Your task to perform on an android device: Open CNN.com Image 0: 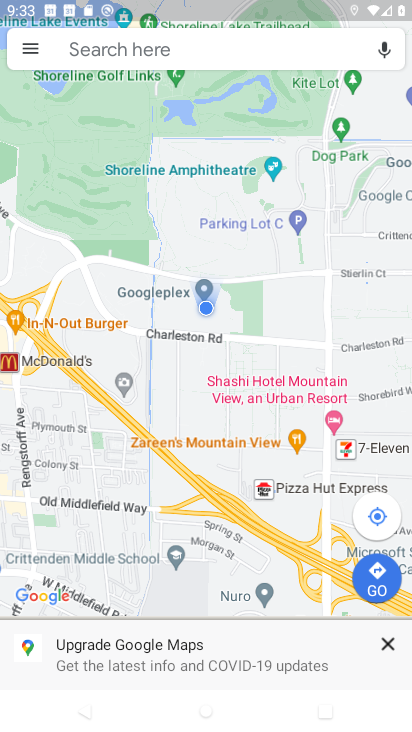
Step 0: press home button
Your task to perform on an android device: Open CNN.com Image 1: 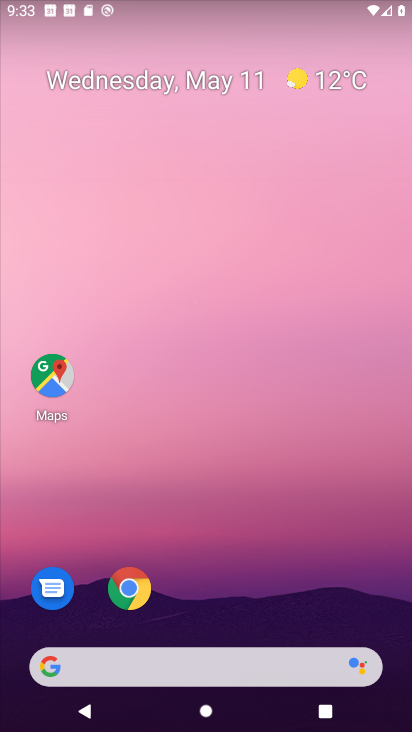
Step 1: click (129, 602)
Your task to perform on an android device: Open CNN.com Image 2: 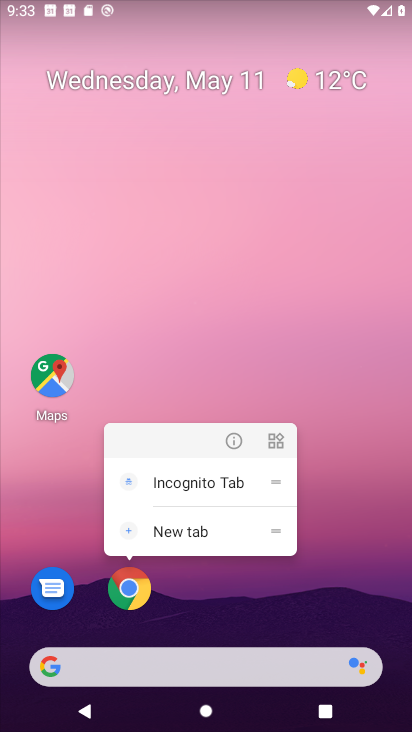
Step 2: drag from (284, 606) to (322, 47)
Your task to perform on an android device: Open CNN.com Image 3: 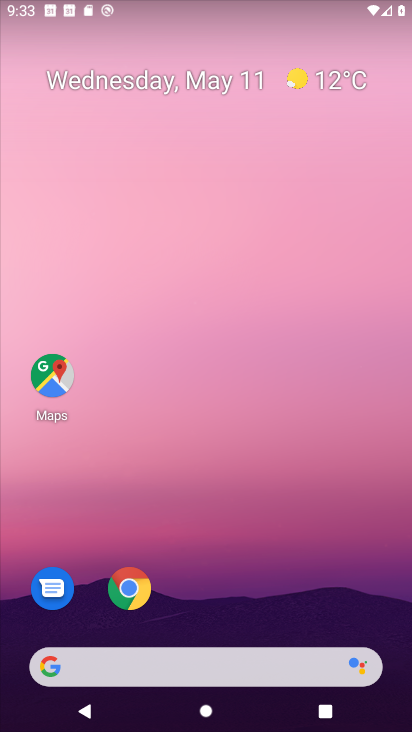
Step 3: drag from (253, 615) to (275, 70)
Your task to perform on an android device: Open CNN.com Image 4: 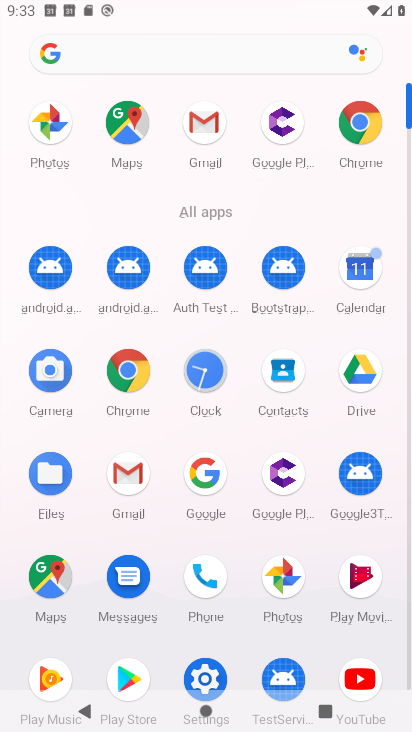
Step 4: click (358, 120)
Your task to perform on an android device: Open CNN.com Image 5: 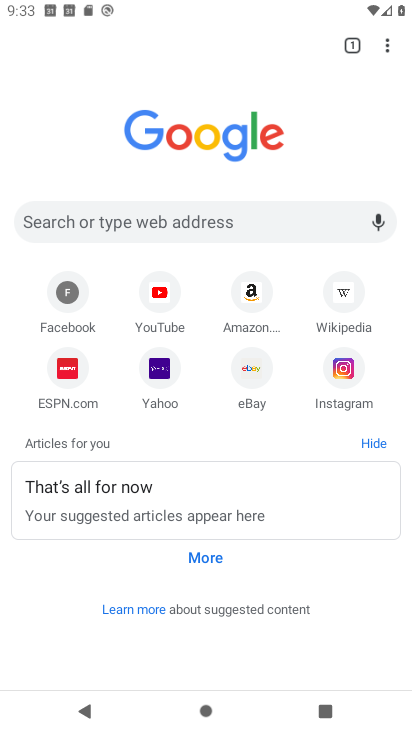
Step 5: click (132, 219)
Your task to perform on an android device: Open CNN.com Image 6: 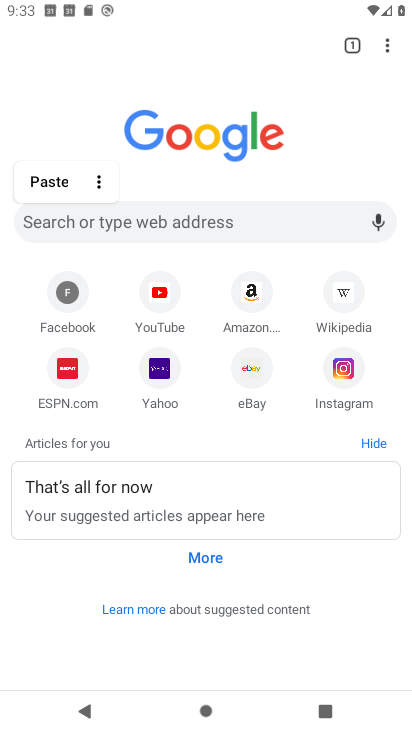
Step 6: type " CNN.com"
Your task to perform on an android device: Open CNN.com Image 7: 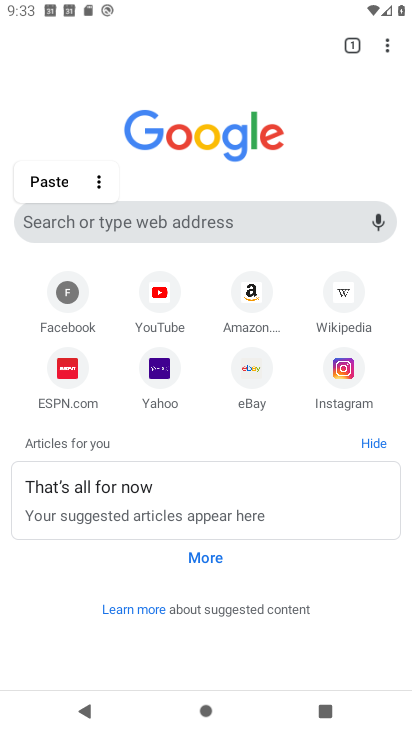
Step 7: click (265, 215)
Your task to perform on an android device: Open CNN.com Image 8: 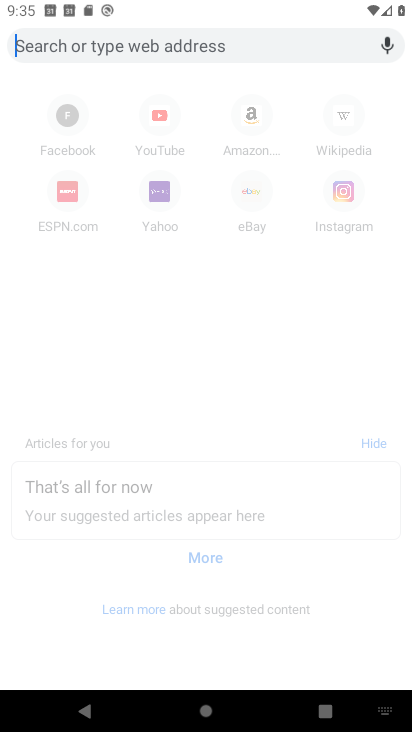
Step 8: type " CNN.com"
Your task to perform on an android device: Open CNN.com Image 9: 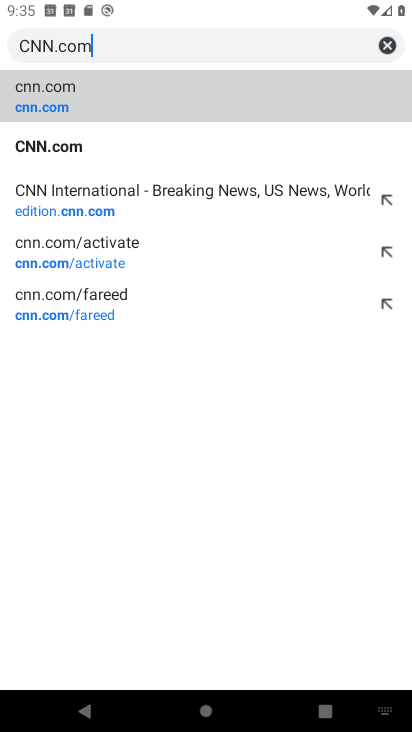
Step 9: click (26, 101)
Your task to perform on an android device: Open CNN.com Image 10: 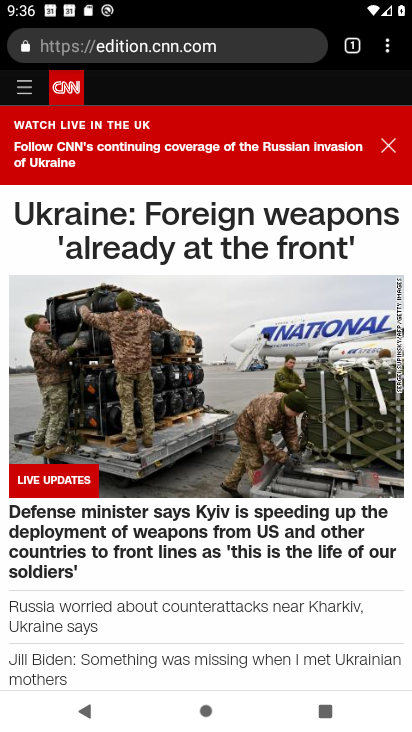
Step 10: task complete